Your task to perform on an android device: find snoozed emails in the gmail app Image 0: 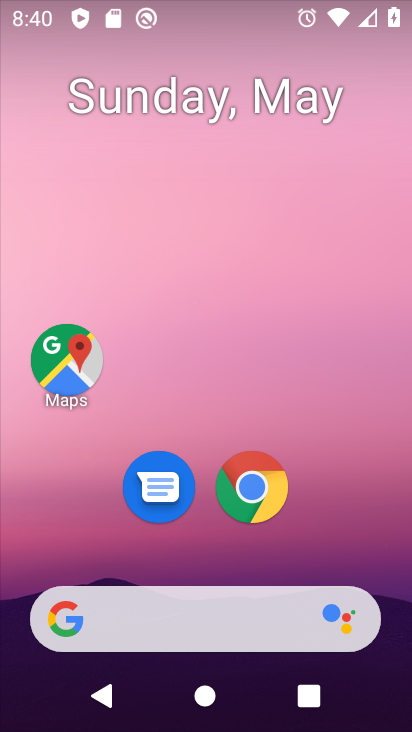
Step 0: drag from (177, 541) to (193, 78)
Your task to perform on an android device: find snoozed emails in the gmail app Image 1: 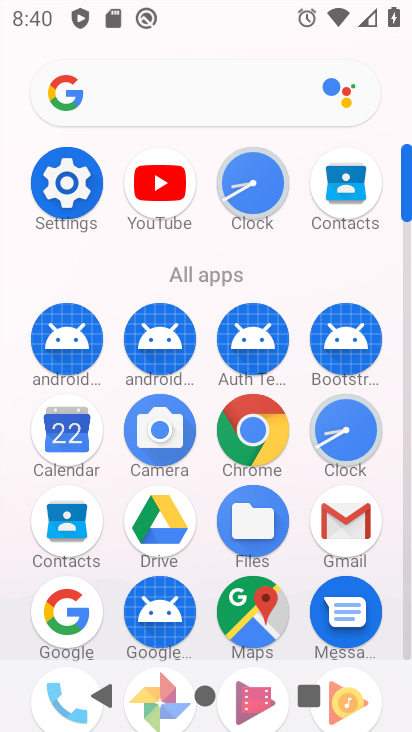
Step 1: click (341, 540)
Your task to perform on an android device: find snoozed emails in the gmail app Image 2: 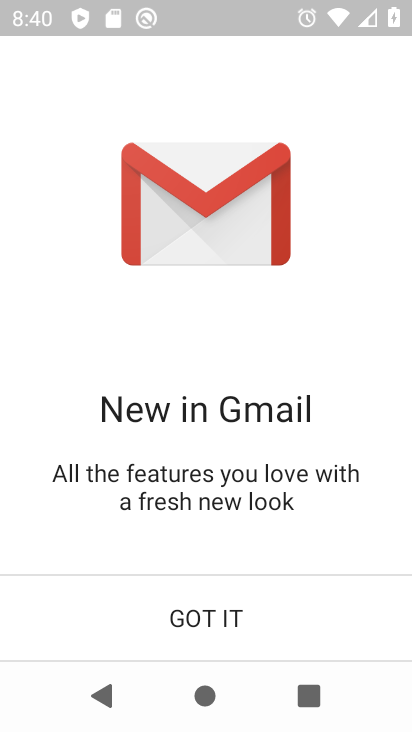
Step 2: click (227, 616)
Your task to perform on an android device: find snoozed emails in the gmail app Image 3: 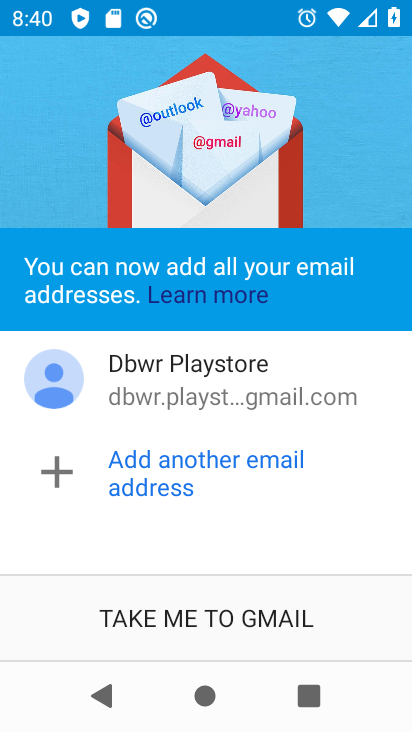
Step 3: click (227, 616)
Your task to perform on an android device: find snoozed emails in the gmail app Image 4: 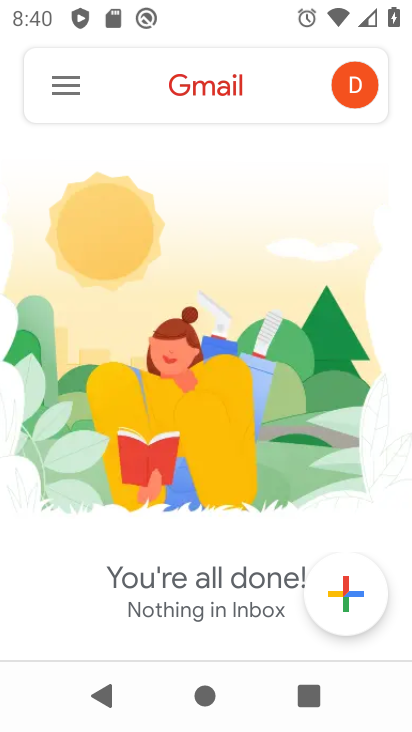
Step 4: click (48, 72)
Your task to perform on an android device: find snoozed emails in the gmail app Image 5: 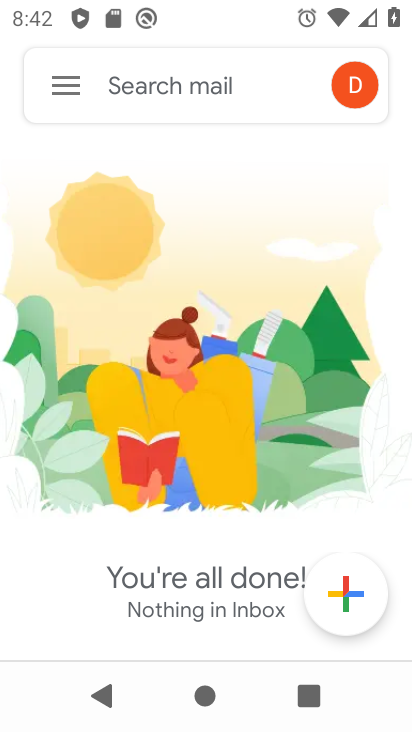
Step 5: click (64, 87)
Your task to perform on an android device: find snoozed emails in the gmail app Image 6: 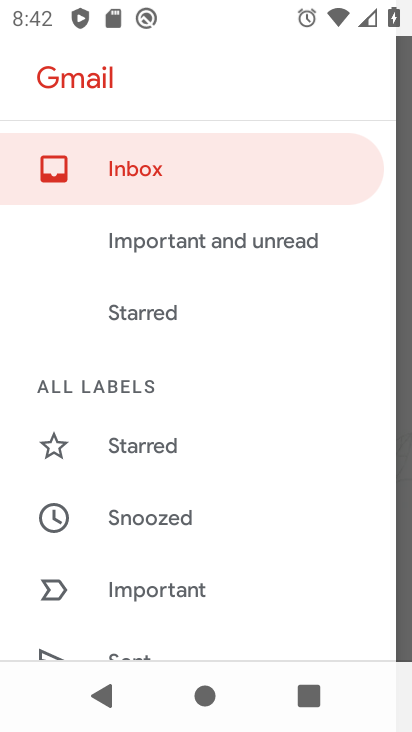
Step 6: drag from (259, 285) to (268, 171)
Your task to perform on an android device: find snoozed emails in the gmail app Image 7: 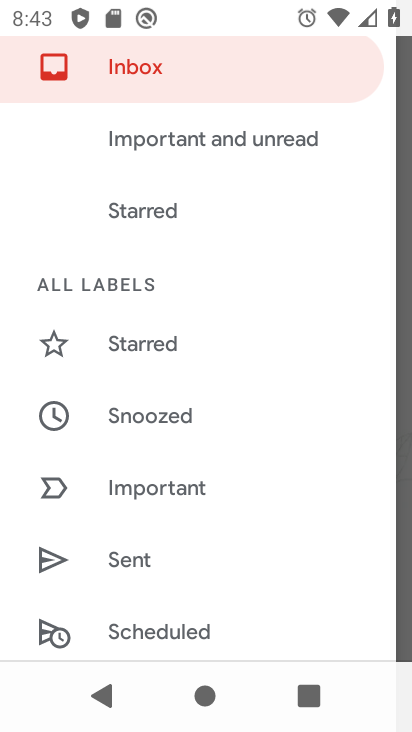
Step 7: click (273, 149)
Your task to perform on an android device: find snoozed emails in the gmail app Image 8: 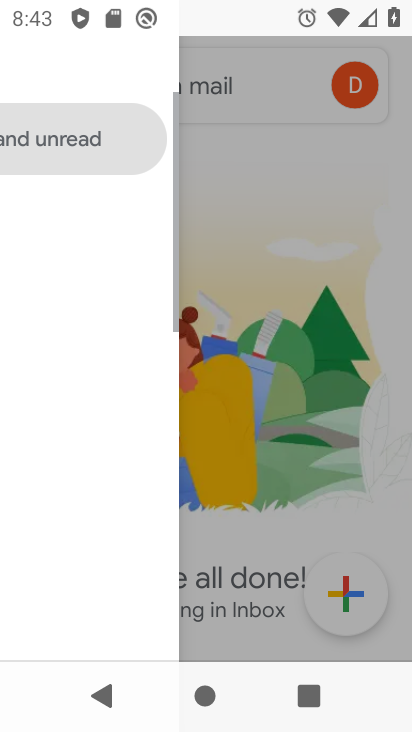
Step 8: click (223, 208)
Your task to perform on an android device: find snoozed emails in the gmail app Image 9: 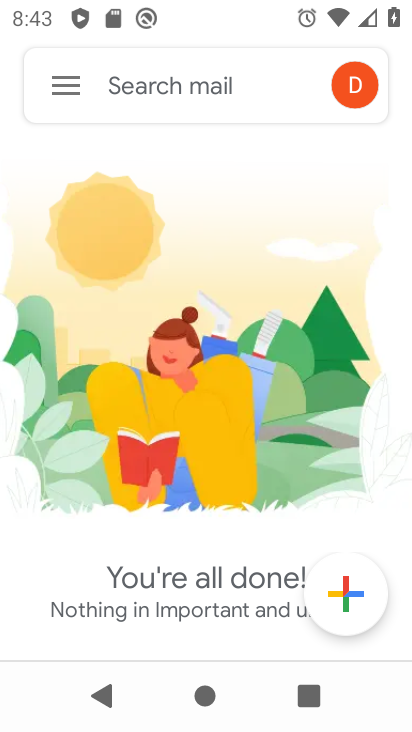
Step 9: click (134, 476)
Your task to perform on an android device: find snoozed emails in the gmail app Image 10: 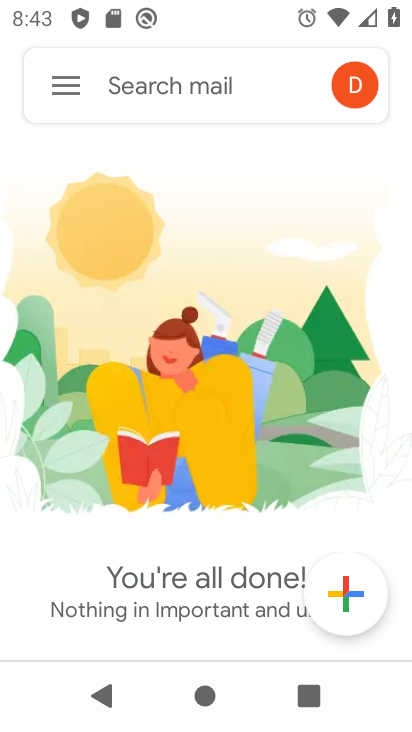
Step 10: click (150, 423)
Your task to perform on an android device: find snoozed emails in the gmail app Image 11: 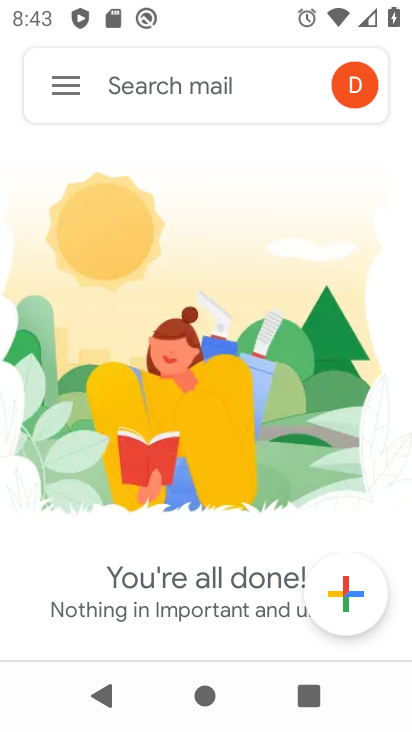
Step 11: click (128, 413)
Your task to perform on an android device: find snoozed emails in the gmail app Image 12: 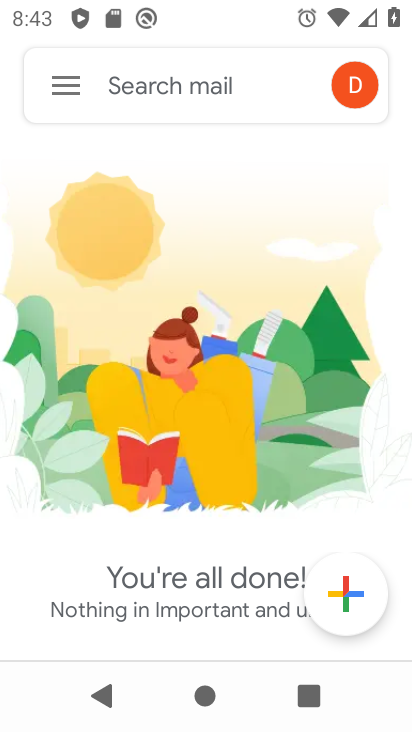
Step 12: click (65, 80)
Your task to perform on an android device: find snoozed emails in the gmail app Image 13: 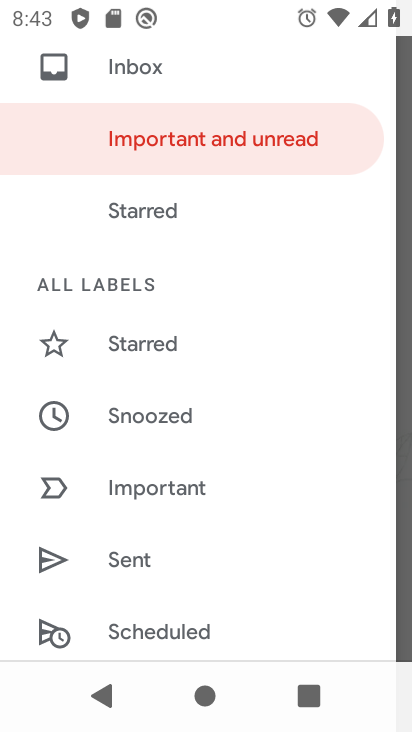
Step 13: click (172, 419)
Your task to perform on an android device: find snoozed emails in the gmail app Image 14: 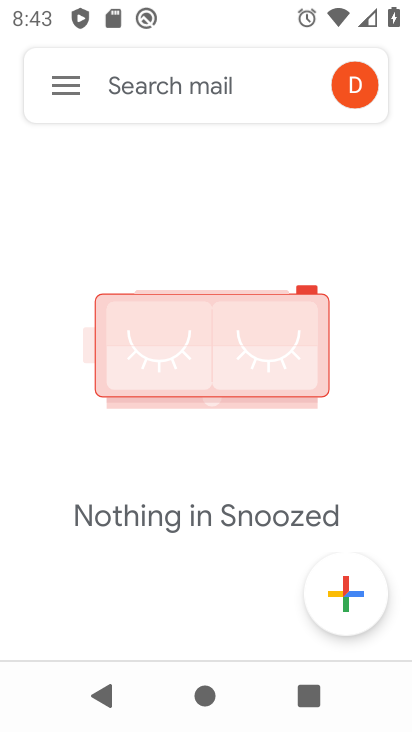
Step 14: task complete